Your task to perform on an android device: What's the latest video from GameSpot News? Image 0: 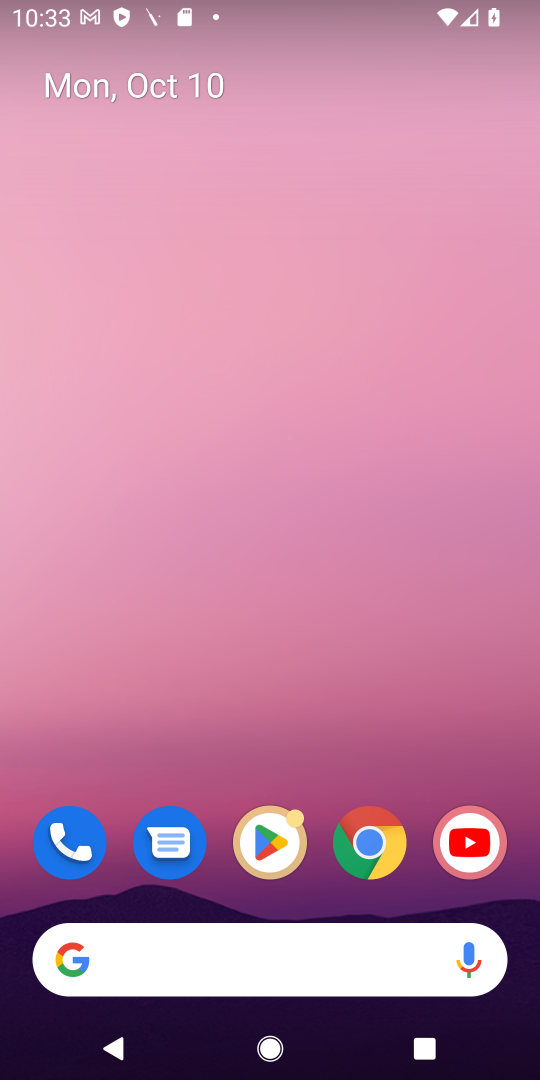
Step 0: click (373, 849)
Your task to perform on an android device: What's the latest video from GameSpot News? Image 1: 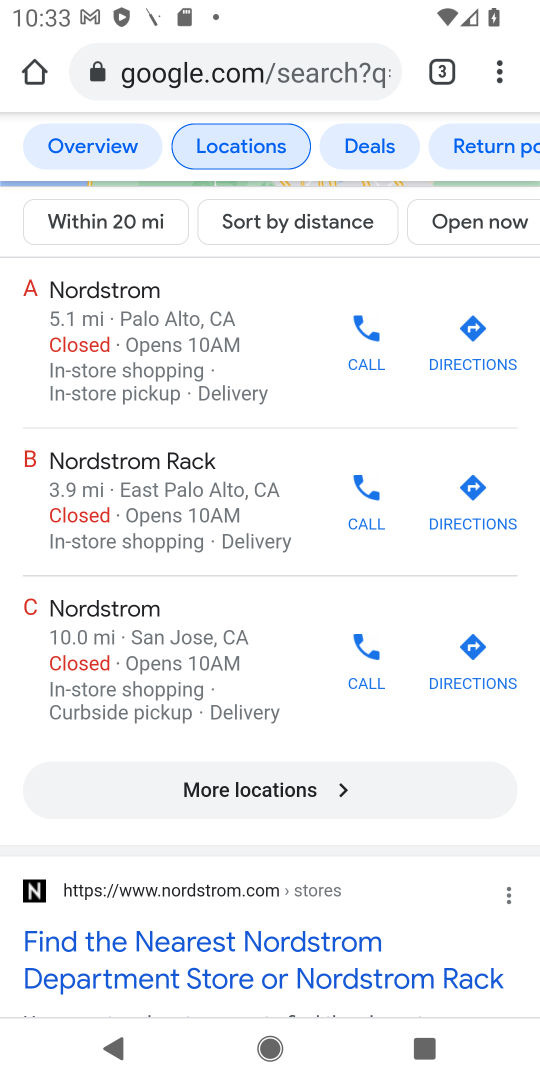
Step 1: click (258, 76)
Your task to perform on an android device: What's the latest video from GameSpot News? Image 2: 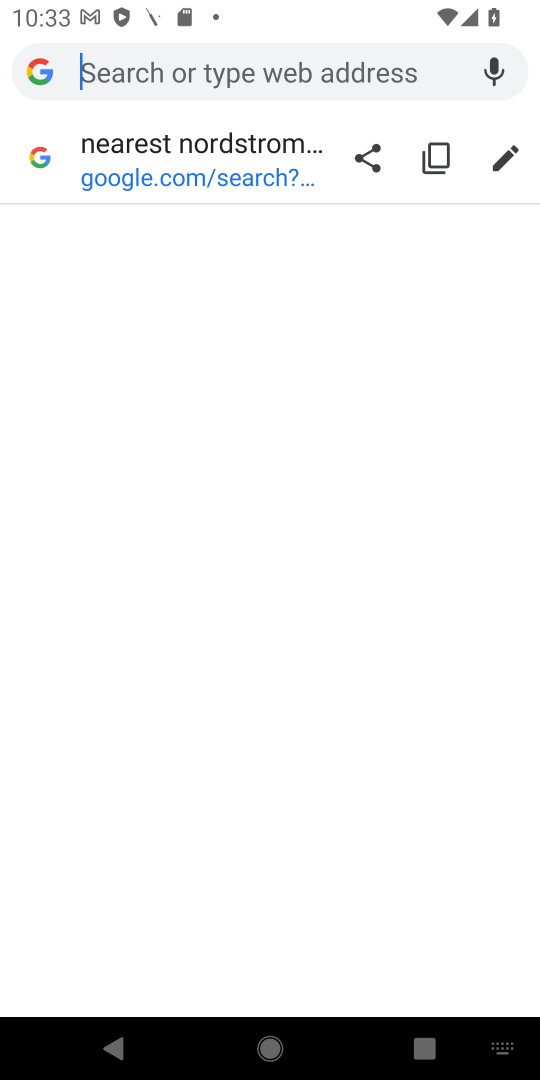
Step 2: type "latest video from gamespot"
Your task to perform on an android device: What's the latest video from GameSpot News? Image 3: 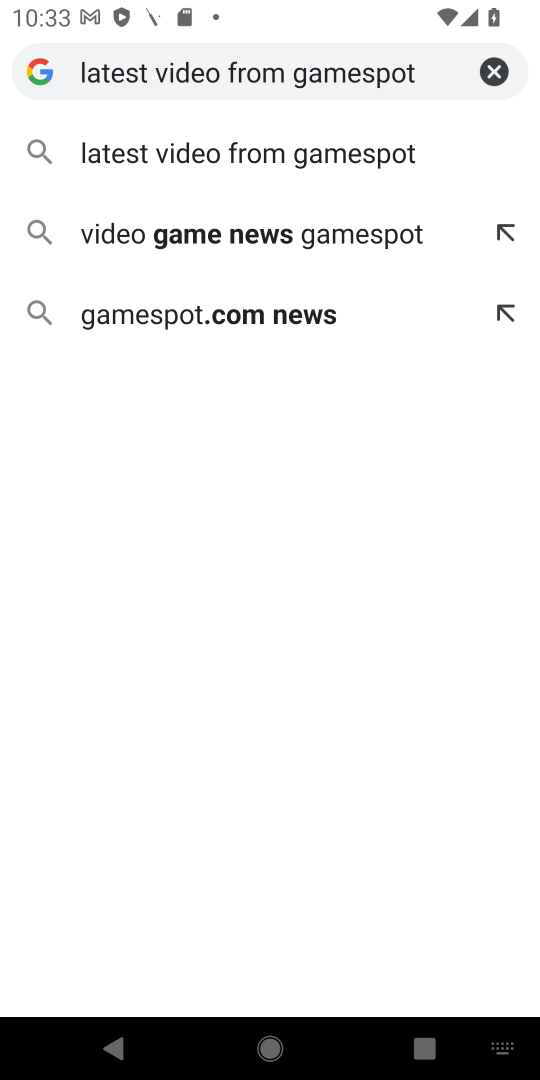
Step 3: click (215, 161)
Your task to perform on an android device: What's the latest video from GameSpot News? Image 4: 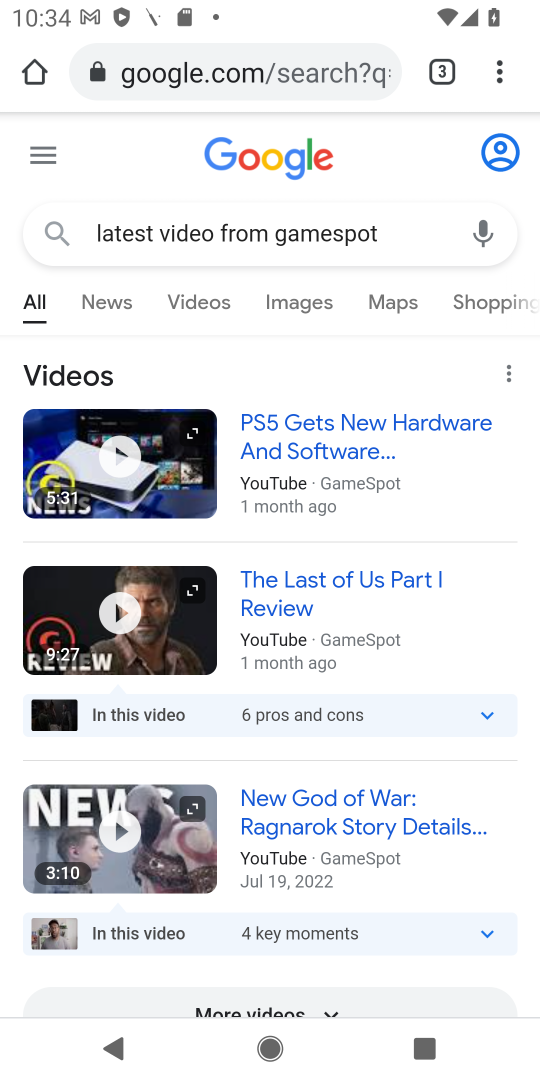
Step 4: click (191, 311)
Your task to perform on an android device: What's the latest video from GameSpot News? Image 5: 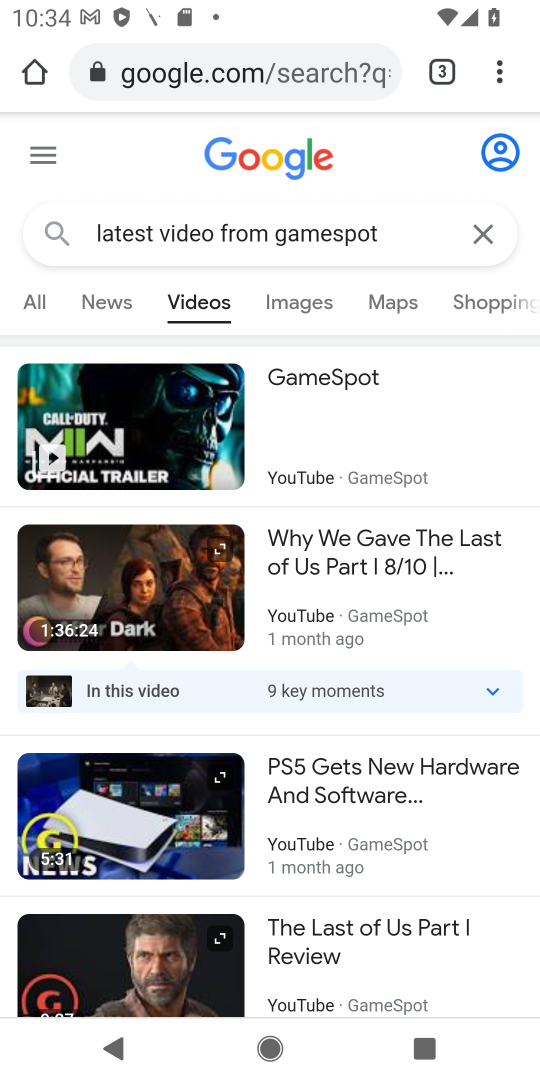
Step 5: click (172, 454)
Your task to perform on an android device: What's the latest video from GameSpot News? Image 6: 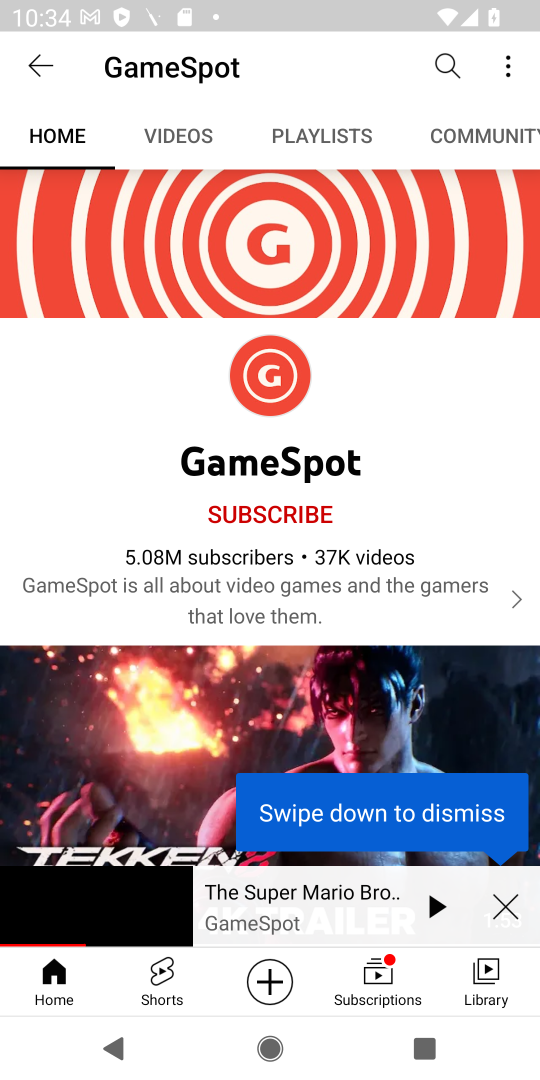
Step 6: drag from (165, 644) to (178, 380)
Your task to perform on an android device: What's the latest video from GameSpot News? Image 7: 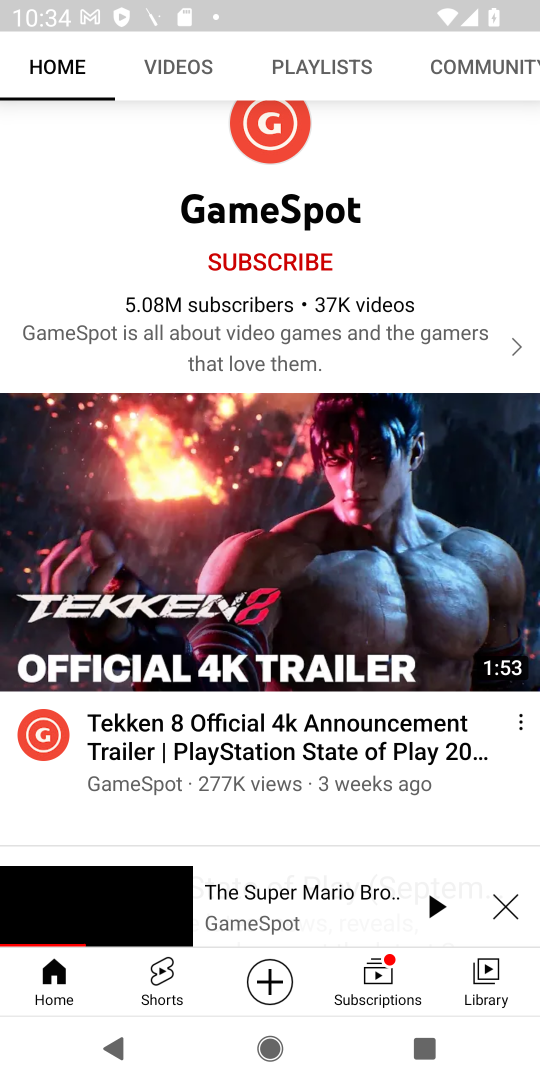
Step 7: click (204, 572)
Your task to perform on an android device: What's the latest video from GameSpot News? Image 8: 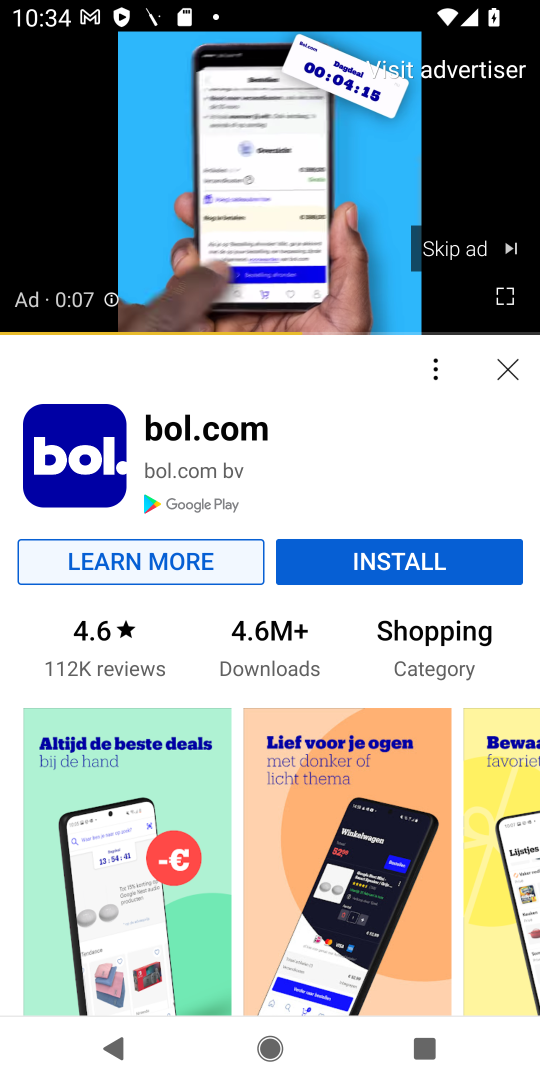
Step 8: click (468, 250)
Your task to perform on an android device: What's the latest video from GameSpot News? Image 9: 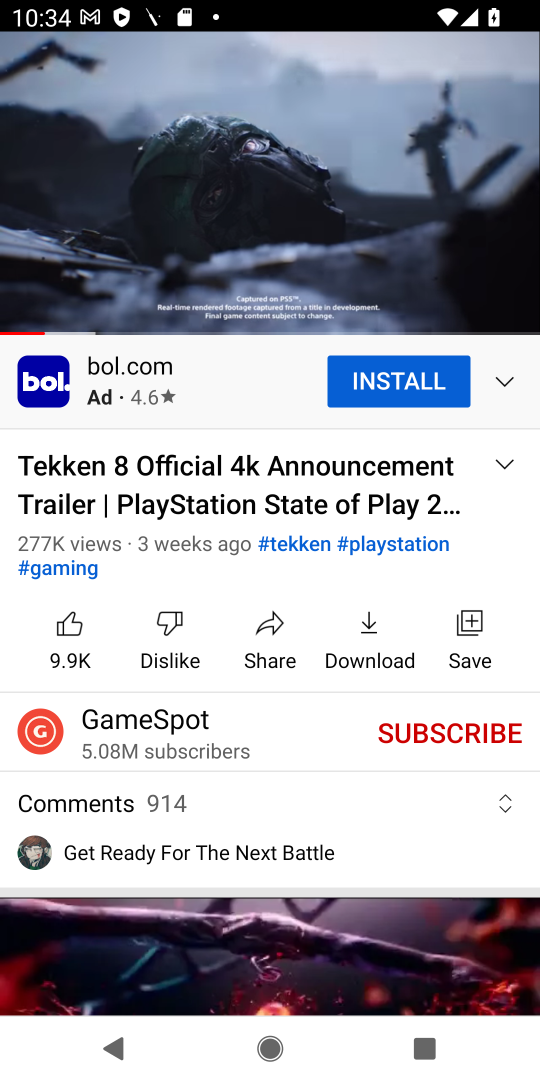
Step 9: click (288, 239)
Your task to perform on an android device: What's the latest video from GameSpot News? Image 10: 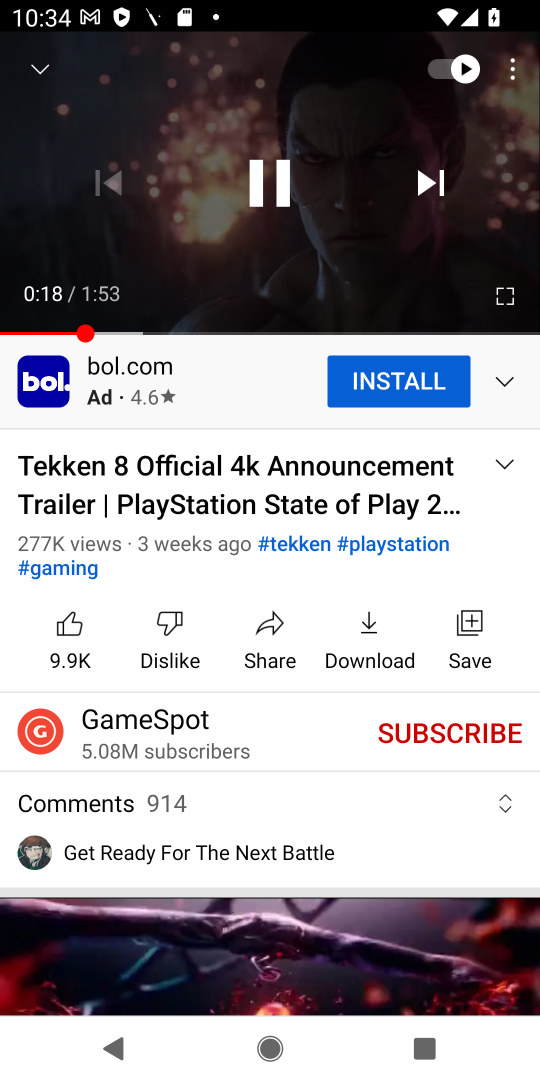
Step 10: click (273, 196)
Your task to perform on an android device: What's the latest video from GameSpot News? Image 11: 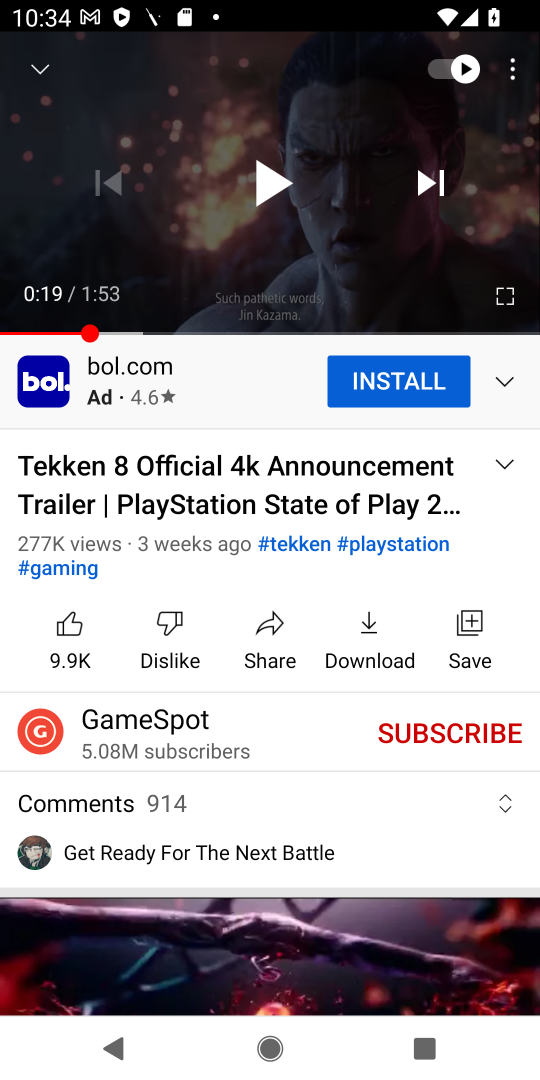
Step 11: task complete